Your task to perform on an android device: turn on improve location accuracy Image 0: 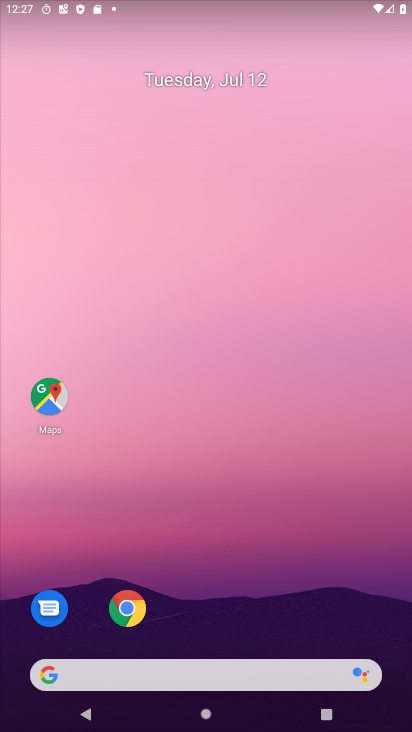
Step 0: drag from (211, 569) to (167, 198)
Your task to perform on an android device: turn on improve location accuracy Image 1: 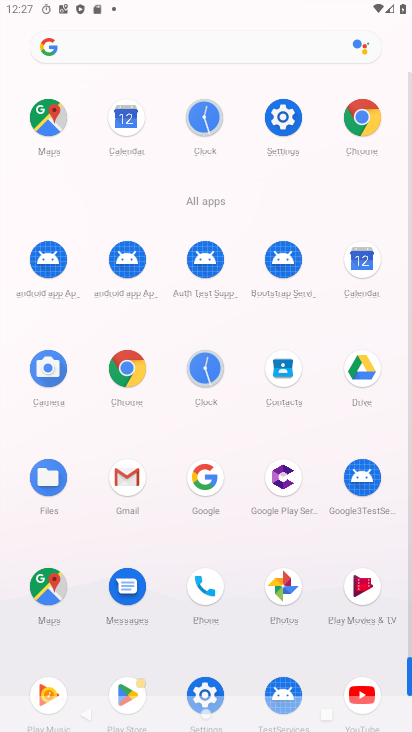
Step 1: click (285, 115)
Your task to perform on an android device: turn on improve location accuracy Image 2: 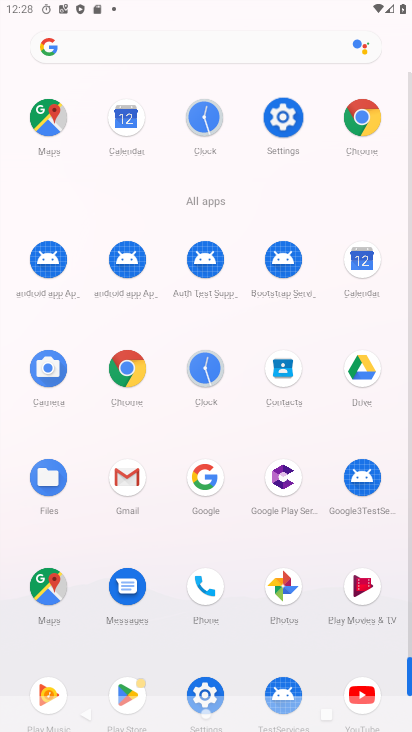
Step 2: click (285, 115)
Your task to perform on an android device: turn on improve location accuracy Image 3: 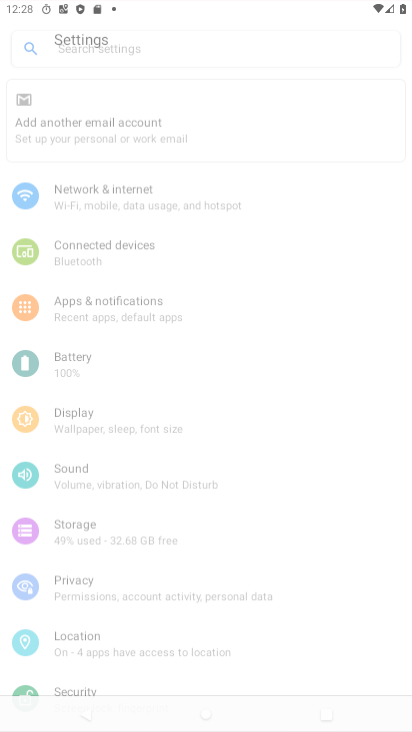
Step 3: click (290, 118)
Your task to perform on an android device: turn on improve location accuracy Image 4: 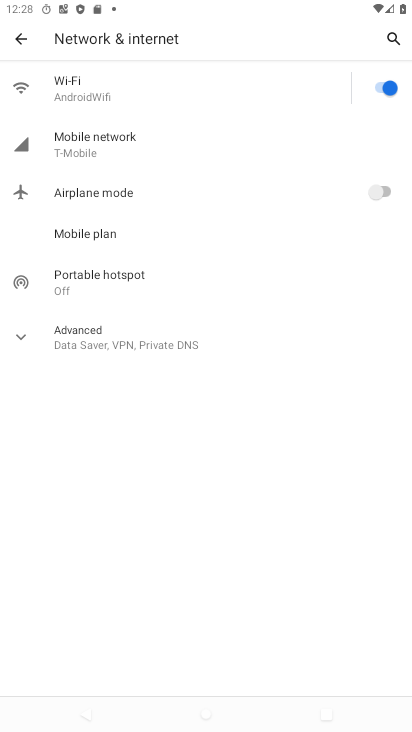
Step 4: click (89, 556)
Your task to perform on an android device: turn on improve location accuracy Image 5: 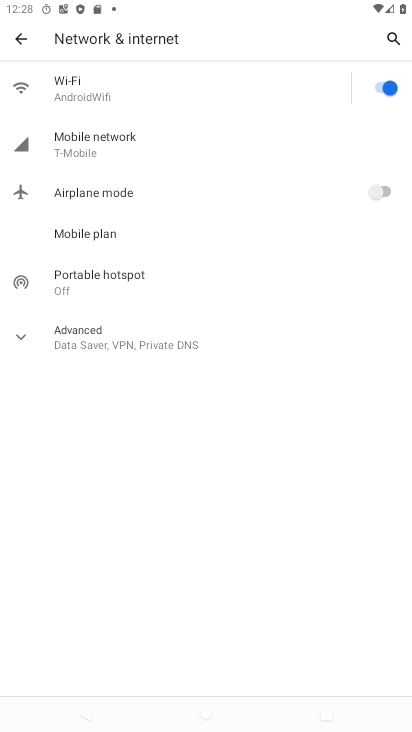
Step 5: click (89, 556)
Your task to perform on an android device: turn on improve location accuracy Image 6: 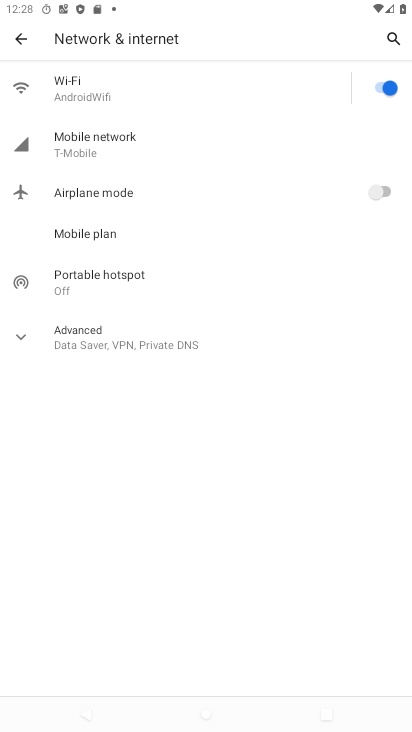
Step 6: click (17, 38)
Your task to perform on an android device: turn on improve location accuracy Image 7: 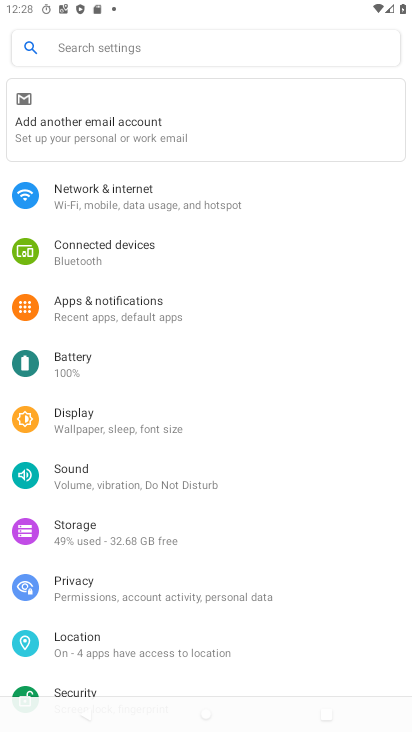
Step 7: click (87, 634)
Your task to perform on an android device: turn on improve location accuracy Image 8: 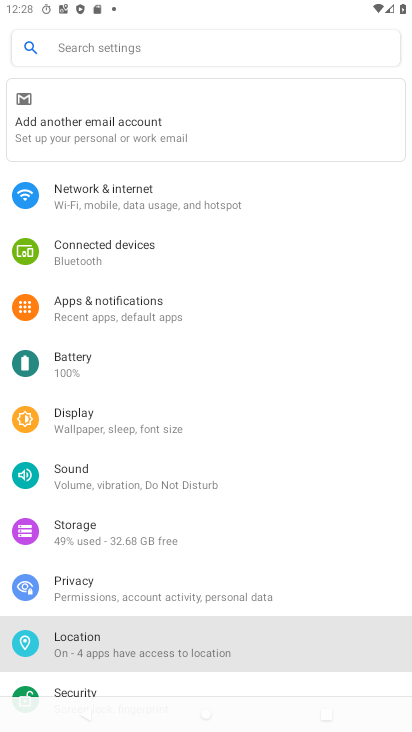
Step 8: click (87, 641)
Your task to perform on an android device: turn on improve location accuracy Image 9: 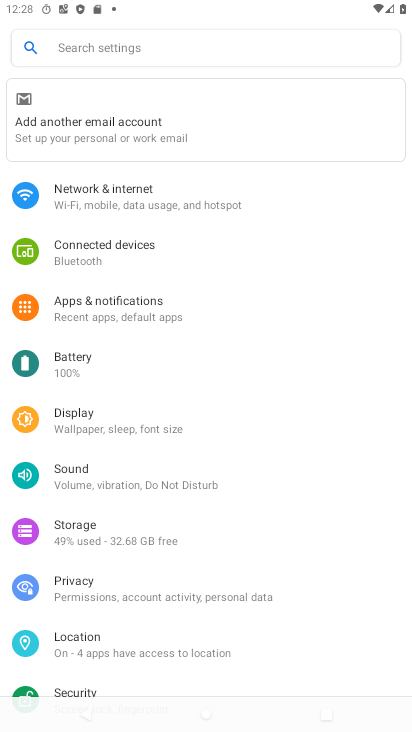
Step 9: click (87, 641)
Your task to perform on an android device: turn on improve location accuracy Image 10: 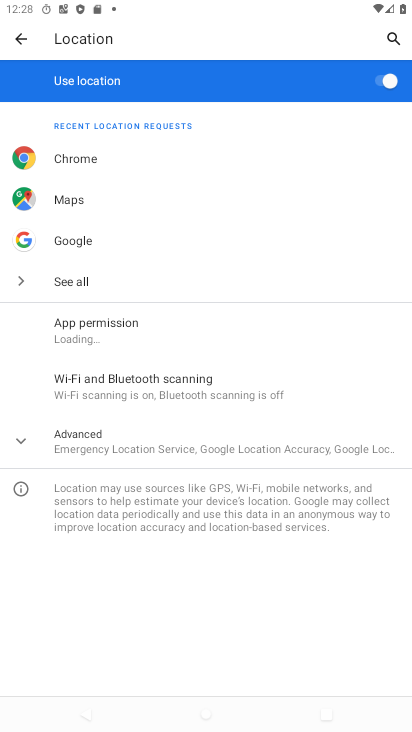
Step 10: click (109, 445)
Your task to perform on an android device: turn on improve location accuracy Image 11: 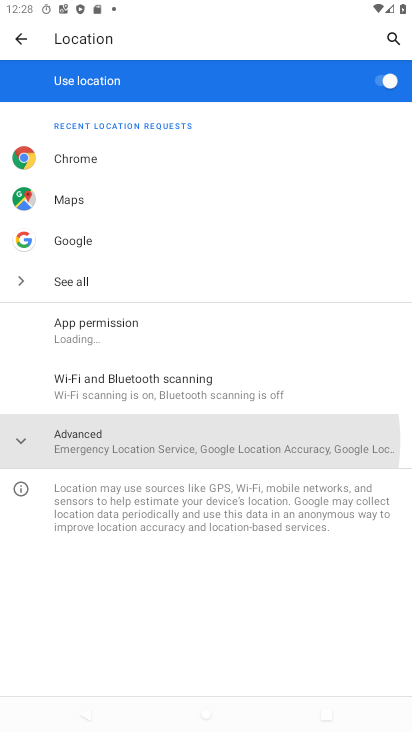
Step 11: click (108, 446)
Your task to perform on an android device: turn on improve location accuracy Image 12: 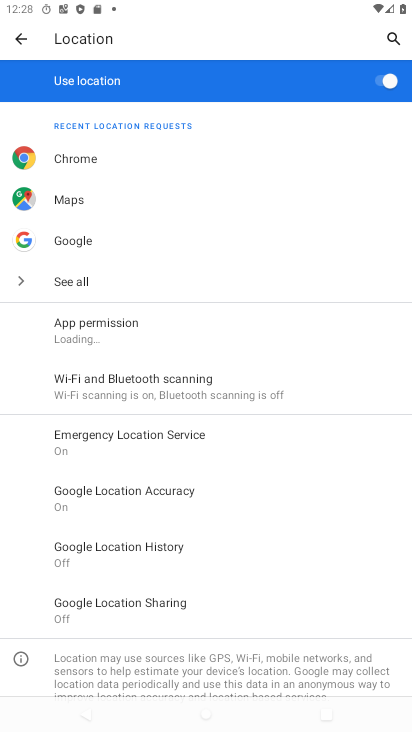
Step 12: click (127, 486)
Your task to perform on an android device: turn on improve location accuracy Image 13: 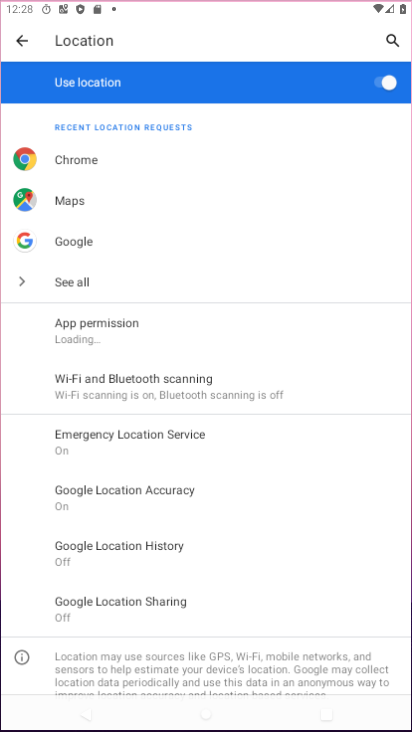
Step 13: click (128, 484)
Your task to perform on an android device: turn on improve location accuracy Image 14: 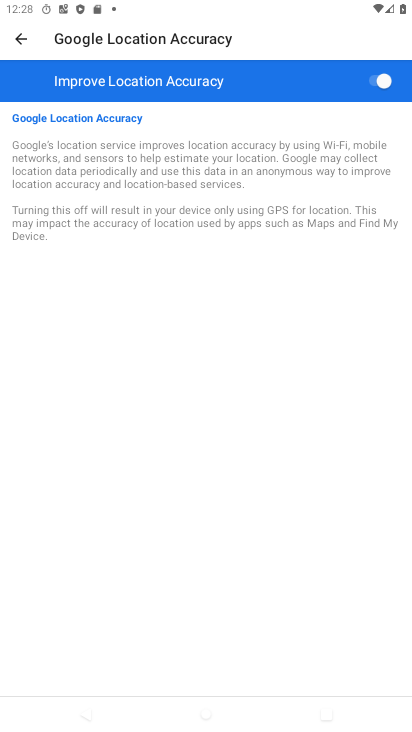
Step 14: task complete